Your task to perform on an android device: Open notification settings Image 0: 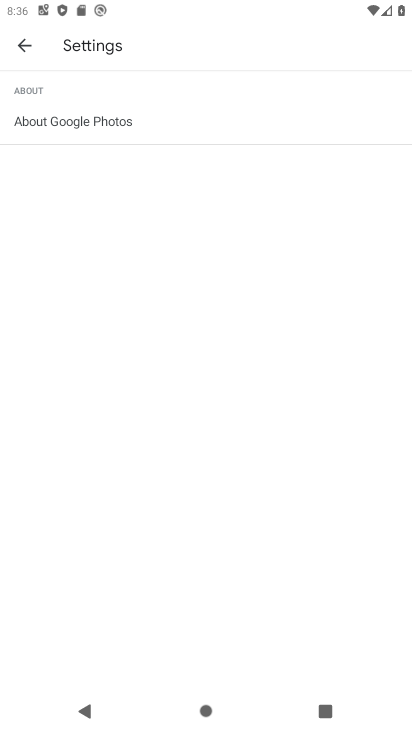
Step 0: press home button
Your task to perform on an android device: Open notification settings Image 1: 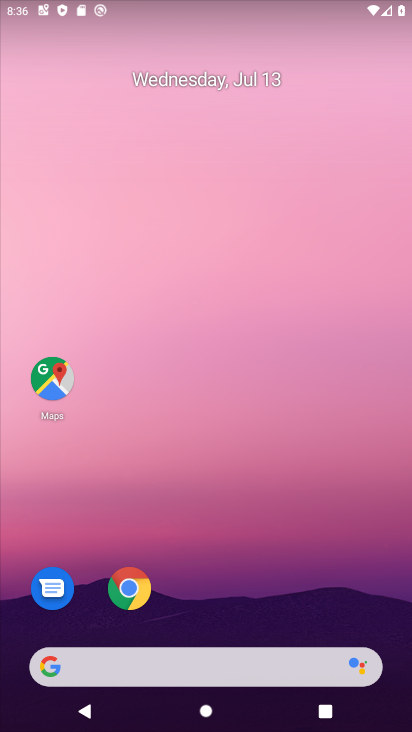
Step 1: drag from (392, 689) to (290, 10)
Your task to perform on an android device: Open notification settings Image 2: 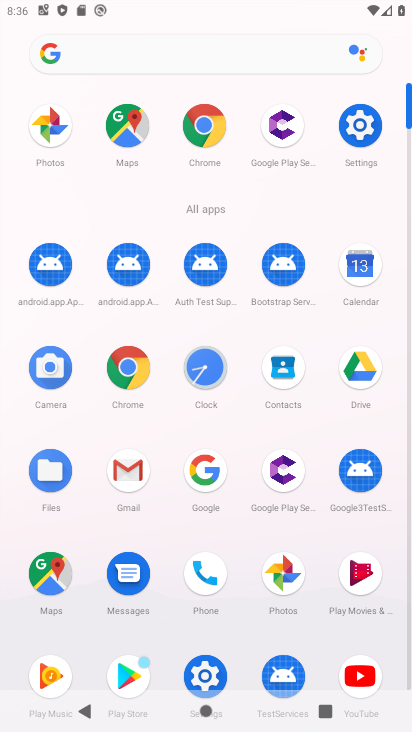
Step 2: drag from (364, 123) to (240, 445)
Your task to perform on an android device: Open notification settings Image 3: 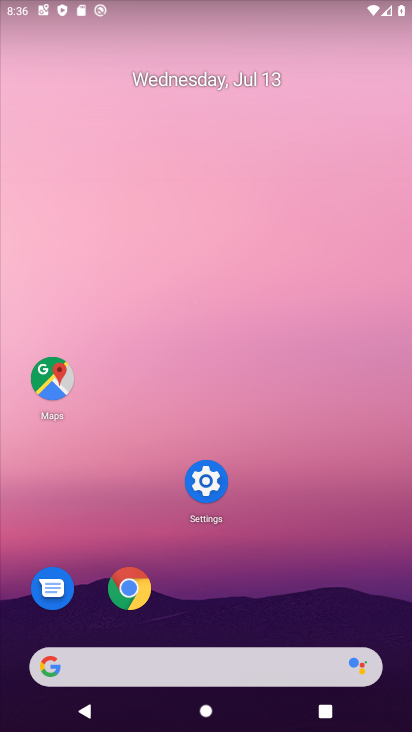
Step 3: click (203, 482)
Your task to perform on an android device: Open notification settings Image 4: 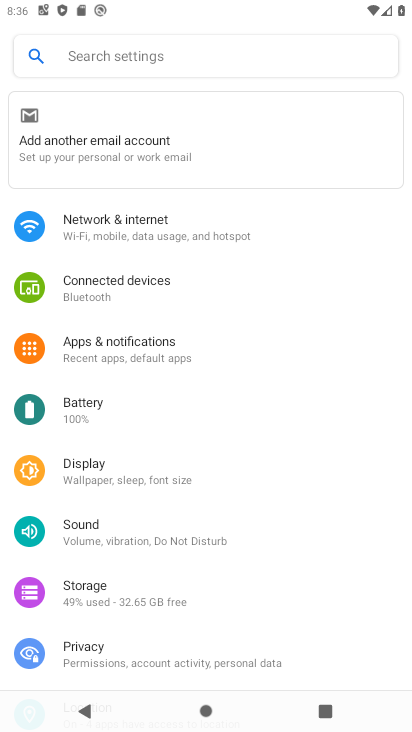
Step 4: click (98, 345)
Your task to perform on an android device: Open notification settings Image 5: 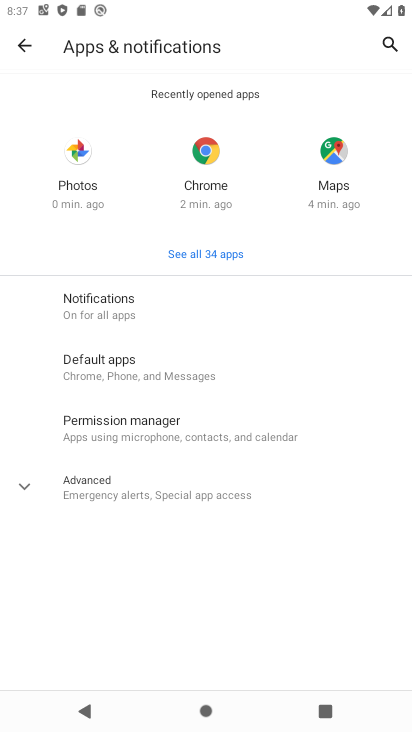
Step 5: click (105, 304)
Your task to perform on an android device: Open notification settings Image 6: 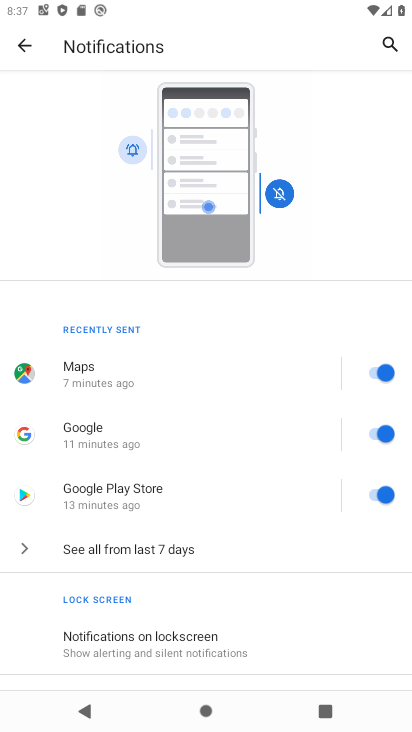
Step 6: task complete